Your task to perform on an android device: open chrome privacy settings Image 0: 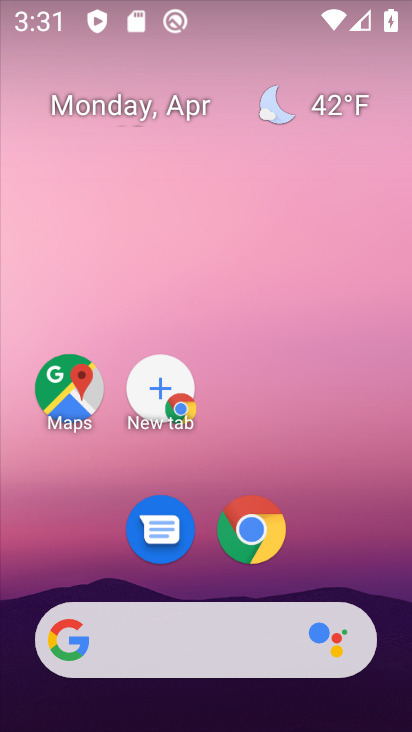
Step 0: click (250, 523)
Your task to perform on an android device: open chrome privacy settings Image 1: 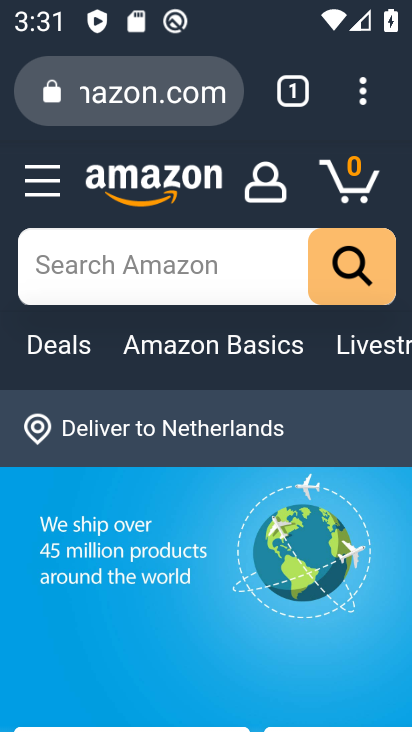
Step 1: click (360, 83)
Your task to perform on an android device: open chrome privacy settings Image 2: 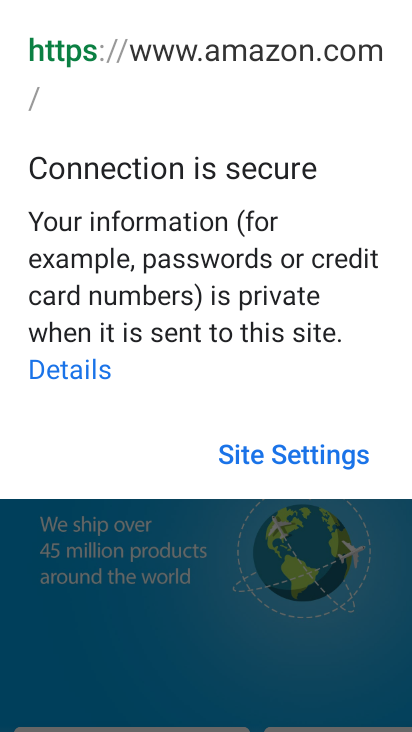
Step 2: click (194, 595)
Your task to perform on an android device: open chrome privacy settings Image 3: 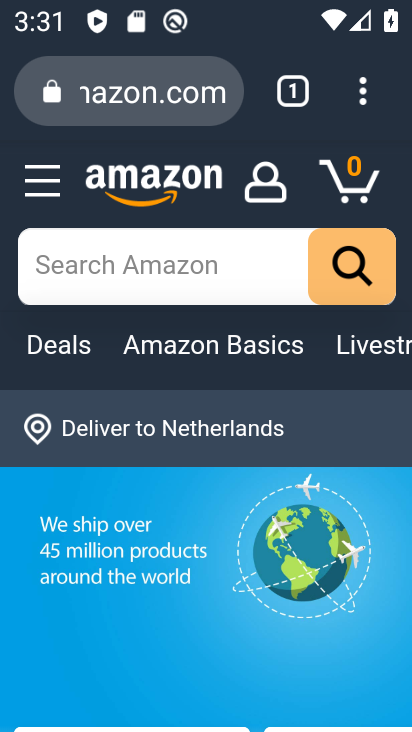
Step 3: drag from (357, 81) to (130, 542)
Your task to perform on an android device: open chrome privacy settings Image 4: 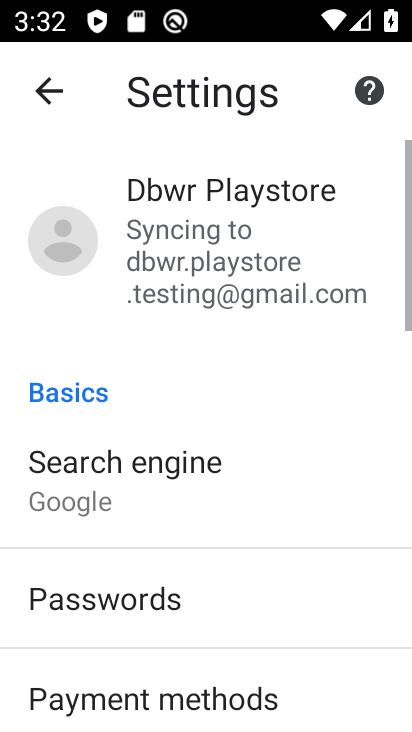
Step 4: drag from (155, 598) to (310, 55)
Your task to perform on an android device: open chrome privacy settings Image 5: 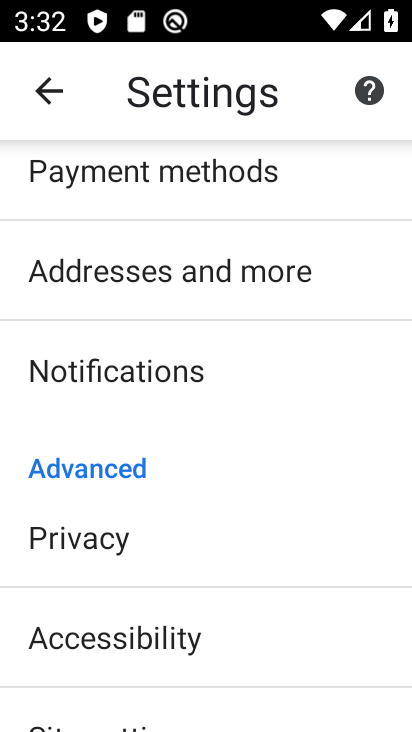
Step 5: click (131, 525)
Your task to perform on an android device: open chrome privacy settings Image 6: 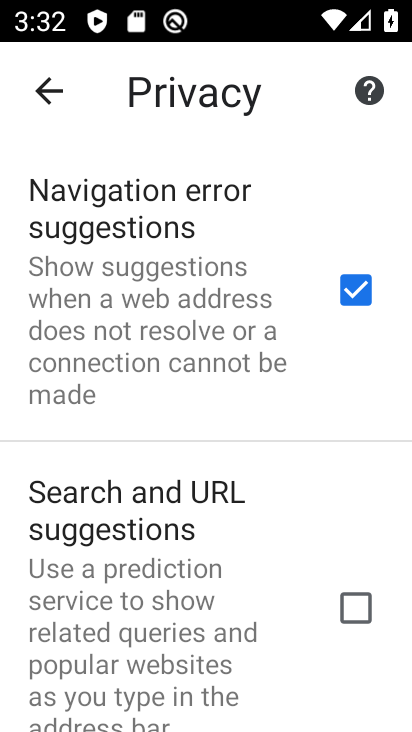
Step 6: task complete